Your task to perform on an android device: Go to sound settings Image 0: 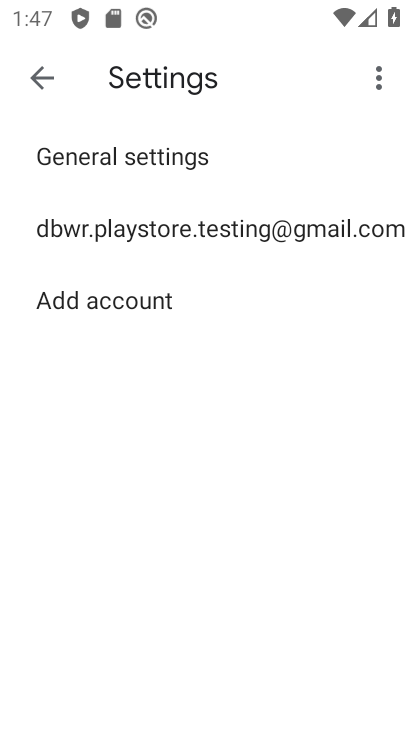
Step 0: press home button
Your task to perform on an android device: Go to sound settings Image 1: 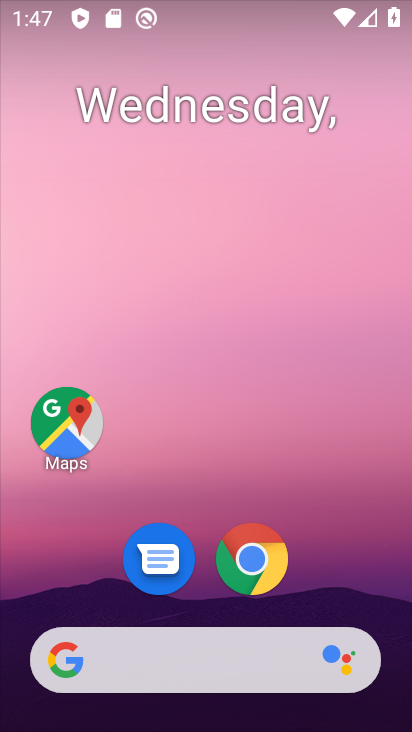
Step 1: drag from (208, 510) to (260, 14)
Your task to perform on an android device: Go to sound settings Image 2: 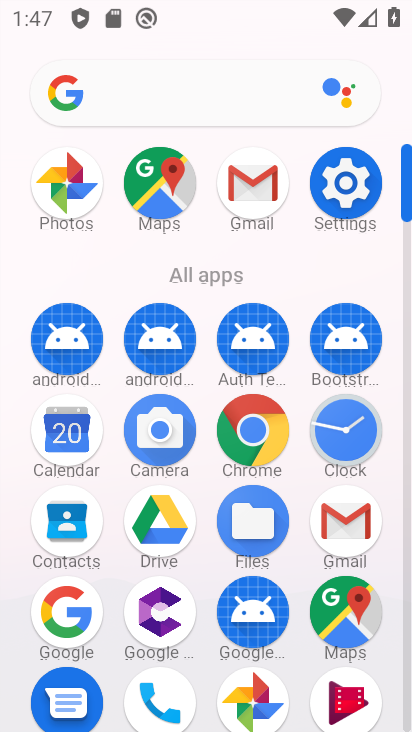
Step 2: click (343, 179)
Your task to perform on an android device: Go to sound settings Image 3: 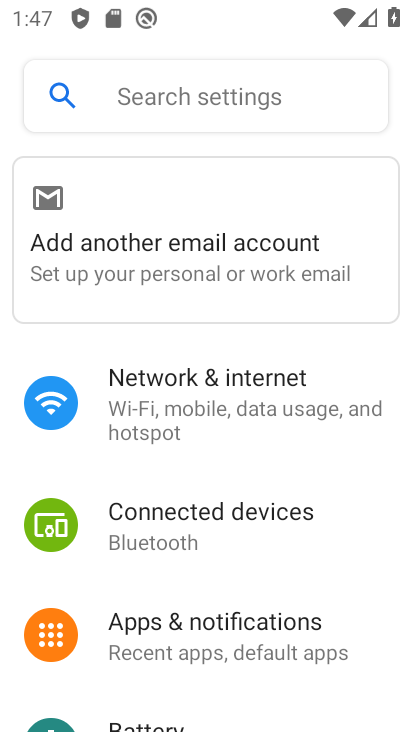
Step 3: drag from (174, 455) to (232, 93)
Your task to perform on an android device: Go to sound settings Image 4: 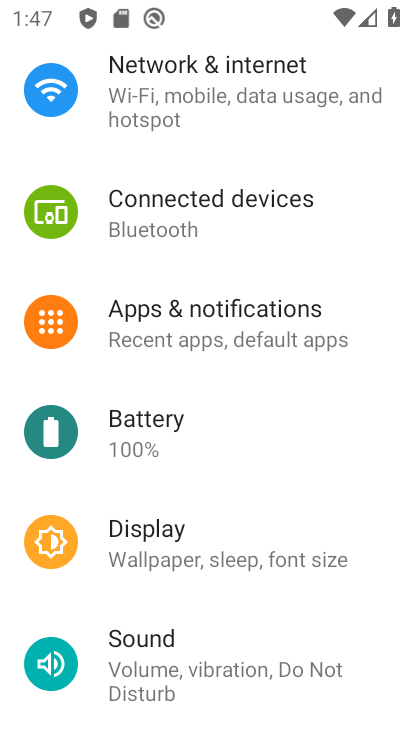
Step 4: click (162, 674)
Your task to perform on an android device: Go to sound settings Image 5: 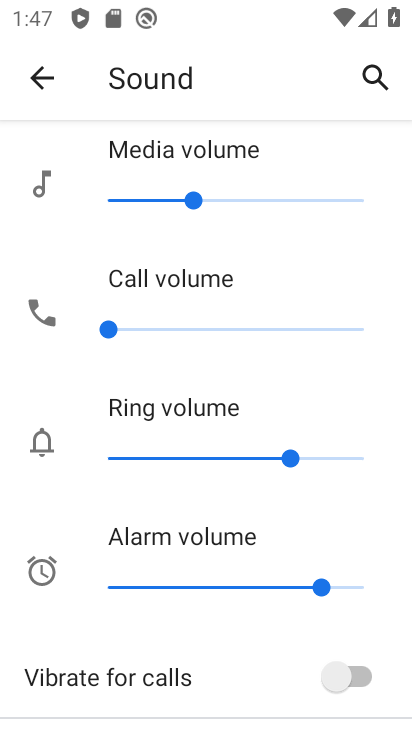
Step 5: task complete